Your task to perform on an android device: empty trash in google photos Image 0: 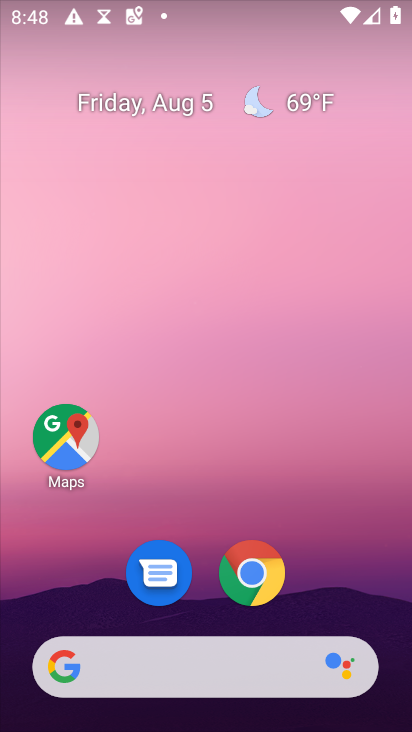
Step 0: drag from (201, 685) to (375, 82)
Your task to perform on an android device: empty trash in google photos Image 1: 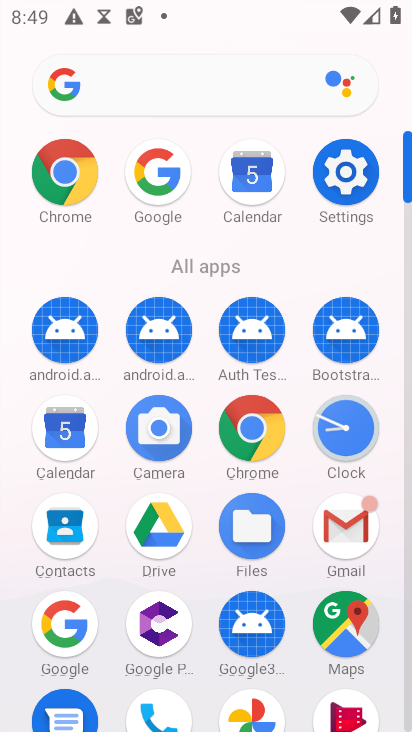
Step 1: drag from (199, 507) to (225, 307)
Your task to perform on an android device: empty trash in google photos Image 2: 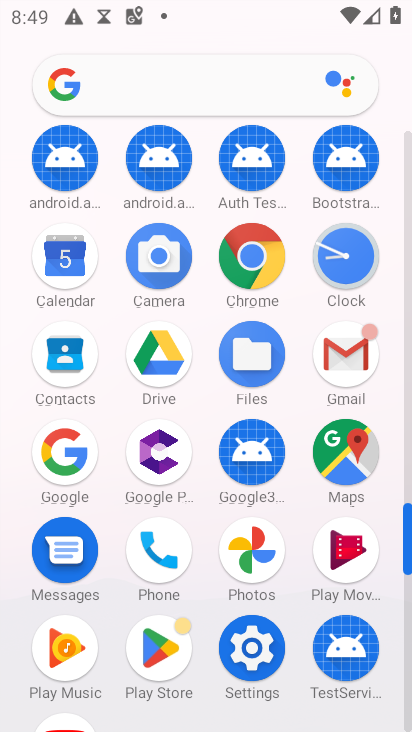
Step 2: click (251, 546)
Your task to perform on an android device: empty trash in google photos Image 3: 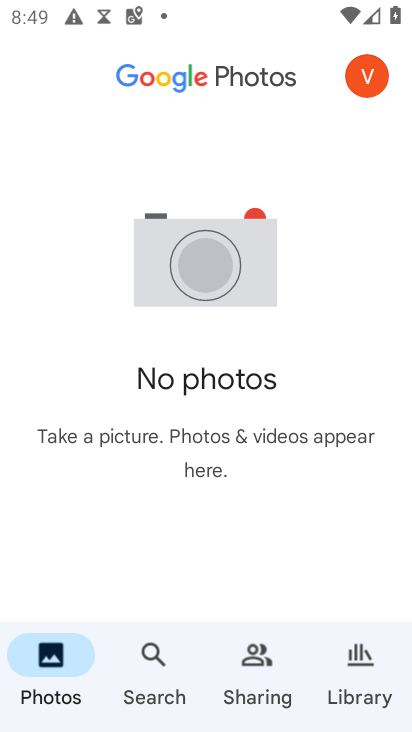
Step 3: click (360, 657)
Your task to perform on an android device: empty trash in google photos Image 4: 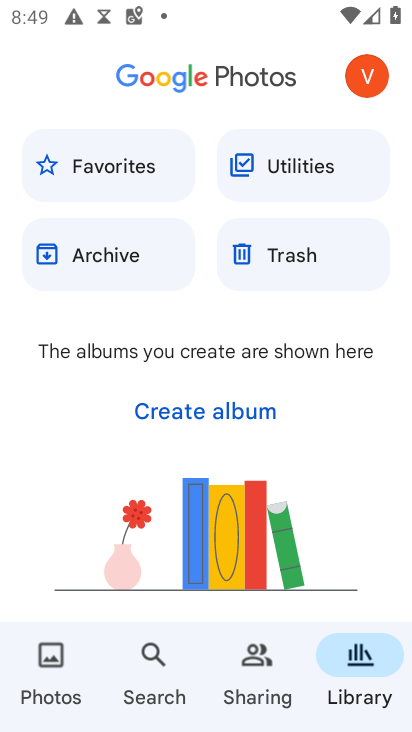
Step 4: click (282, 253)
Your task to perform on an android device: empty trash in google photos Image 5: 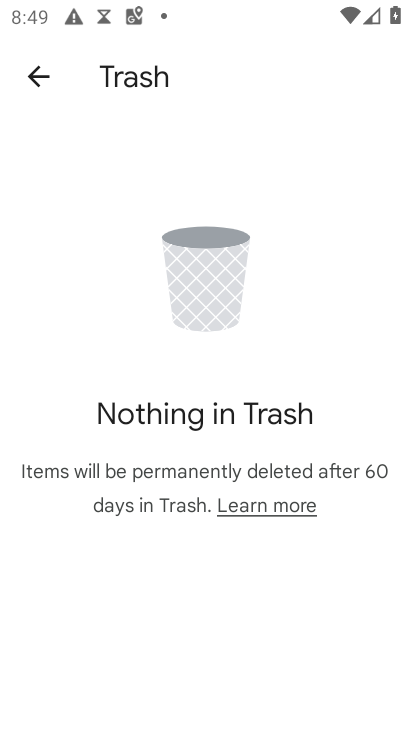
Step 5: task complete